Your task to perform on an android device: Open calendar and show me the third week of next month Image 0: 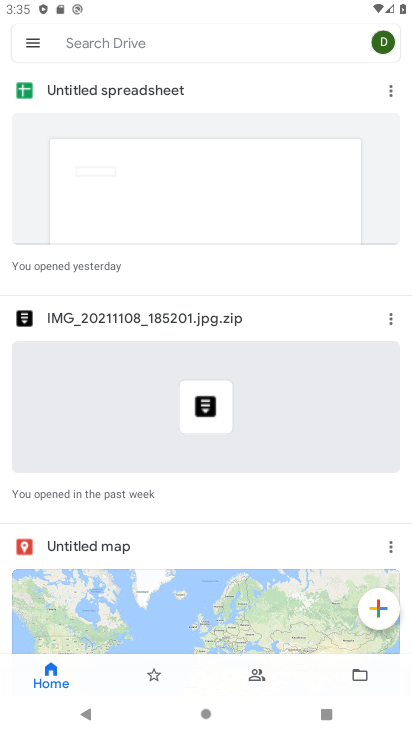
Step 0: press home button
Your task to perform on an android device: Open calendar and show me the third week of next month Image 1: 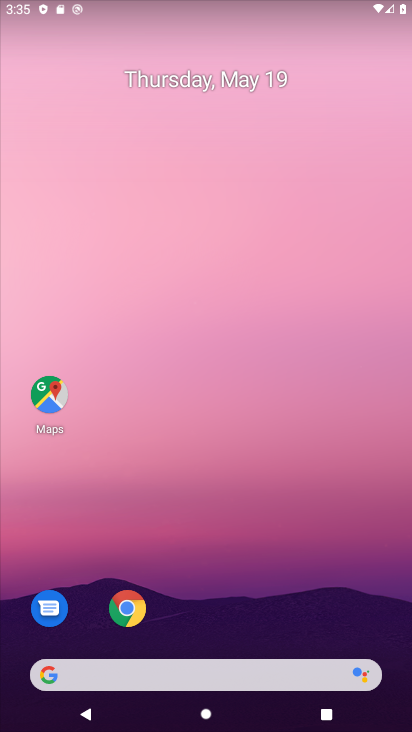
Step 1: drag from (223, 728) to (232, 158)
Your task to perform on an android device: Open calendar and show me the third week of next month Image 2: 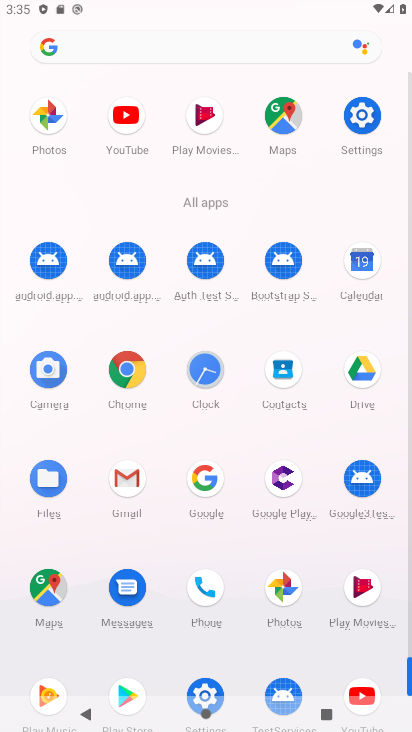
Step 2: click (364, 265)
Your task to perform on an android device: Open calendar and show me the third week of next month Image 3: 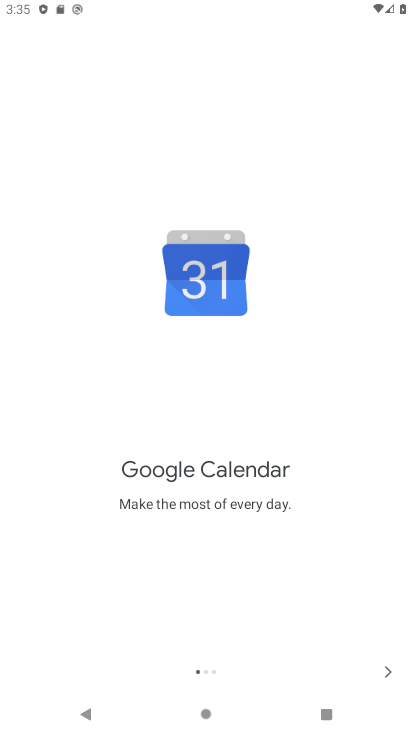
Step 3: click (386, 669)
Your task to perform on an android device: Open calendar and show me the third week of next month Image 4: 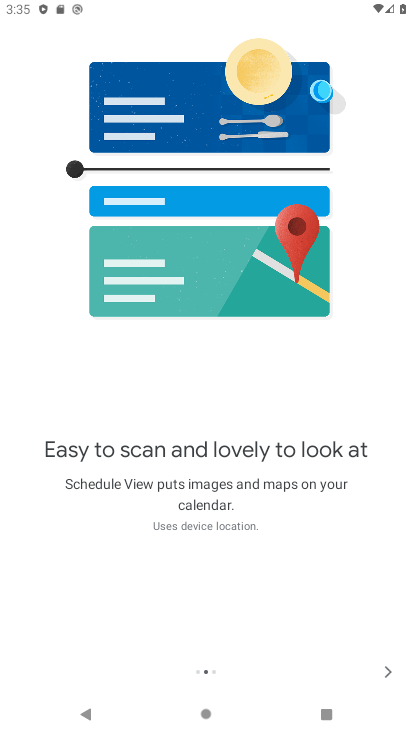
Step 4: click (392, 670)
Your task to perform on an android device: Open calendar and show me the third week of next month Image 5: 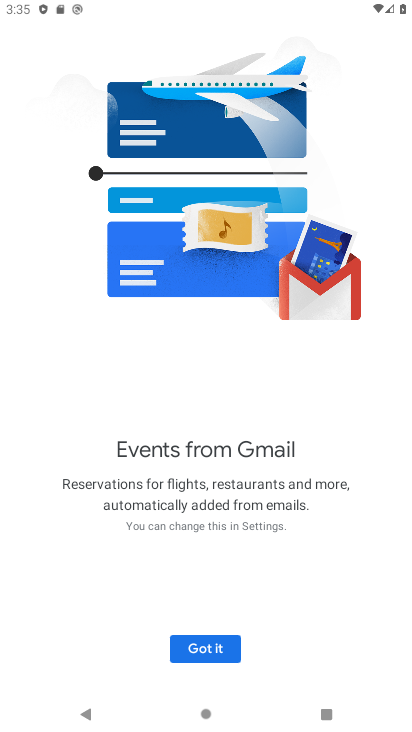
Step 5: click (219, 643)
Your task to perform on an android device: Open calendar and show me the third week of next month Image 6: 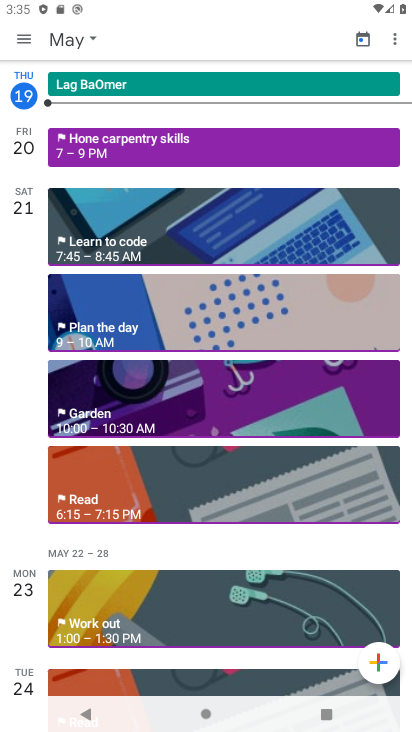
Step 6: click (64, 39)
Your task to perform on an android device: Open calendar and show me the third week of next month Image 7: 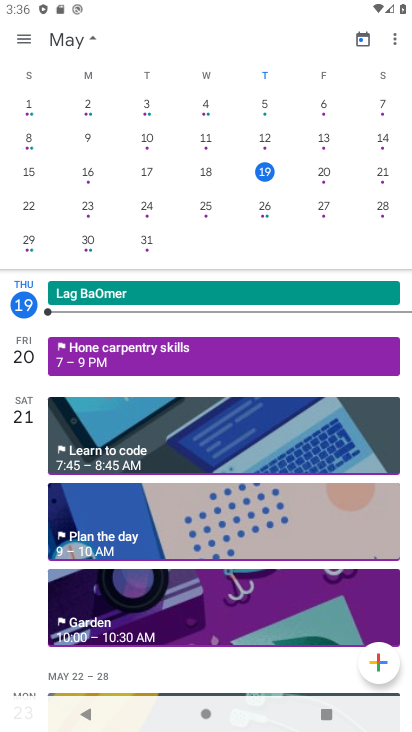
Step 7: drag from (358, 163) to (2, 148)
Your task to perform on an android device: Open calendar and show me the third week of next month Image 8: 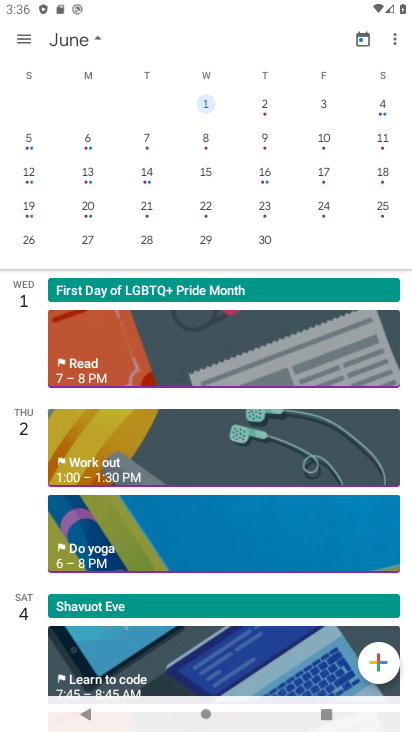
Step 8: click (86, 200)
Your task to perform on an android device: Open calendar and show me the third week of next month Image 9: 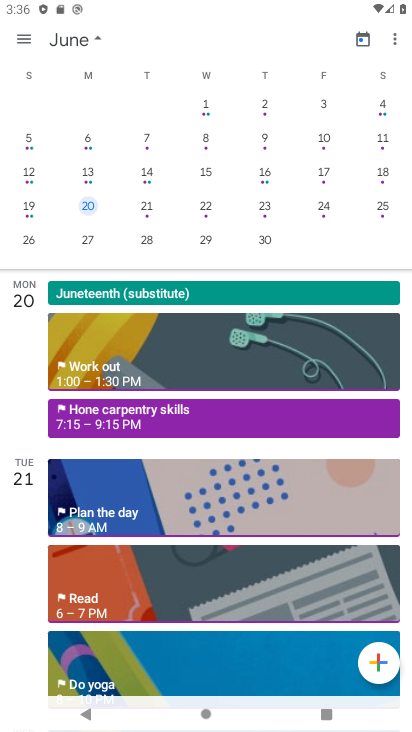
Step 9: click (23, 30)
Your task to perform on an android device: Open calendar and show me the third week of next month Image 10: 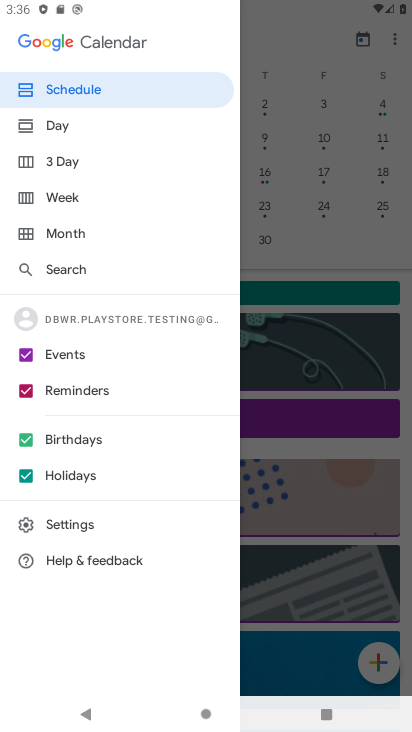
Step 10: click (66, 195)
Your task to perform on an android device: Open calendar and show me the third week of next month Image 11: 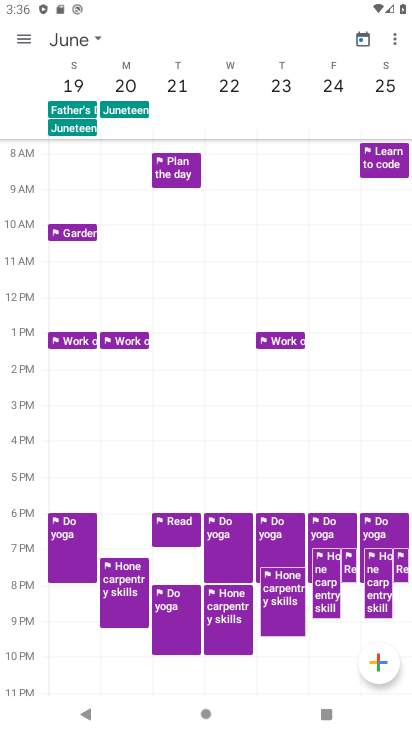
Step 11: task complete